Your task to perform on an android device: Show me popular videos on Youtube Image 0: 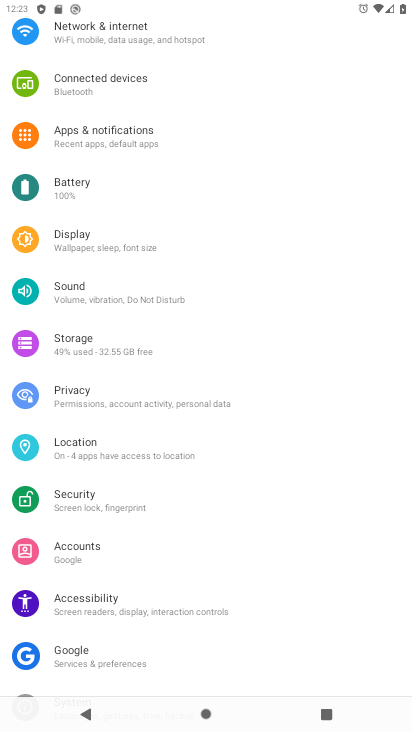
Step 0: press home button
Your task to perform on an android device: Show me popular videos on Youtube Image 1: 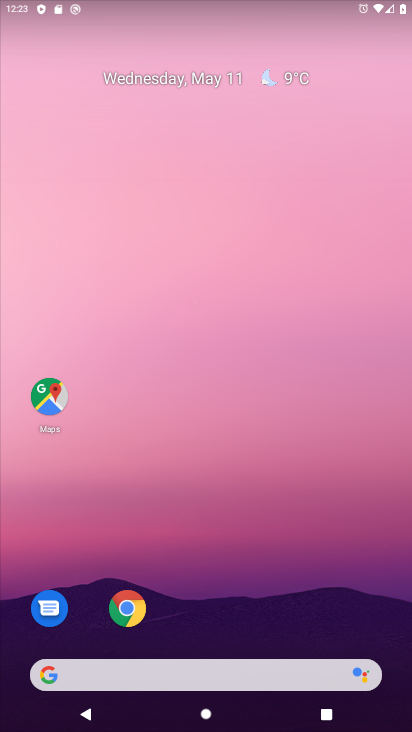
Step 1: drag from (310, 609) to (278, 196)
Your task to perform on an android device: Show me popular videos on Youtube Image 2: 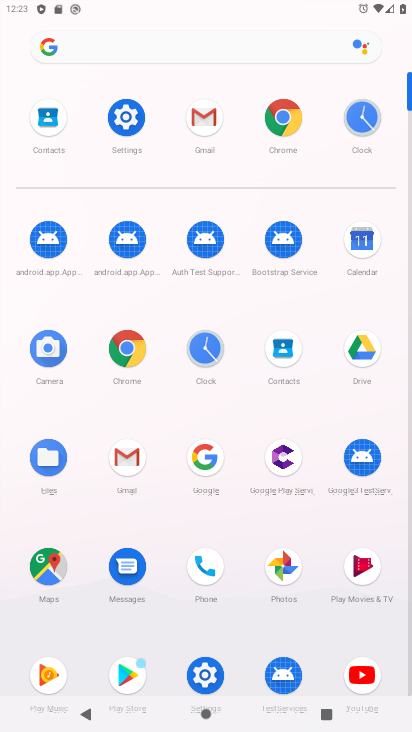
Step 2: click (370, 677)
Your task to perform on an android device: Show me popular videos on Youtube Image 3: 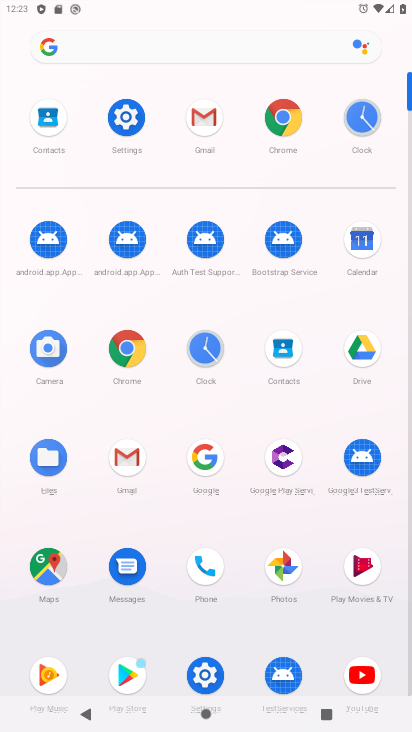
Step 3: click (370, 677)
Your task to perform on an android device: Show me popular videos on Youtube Image 4: 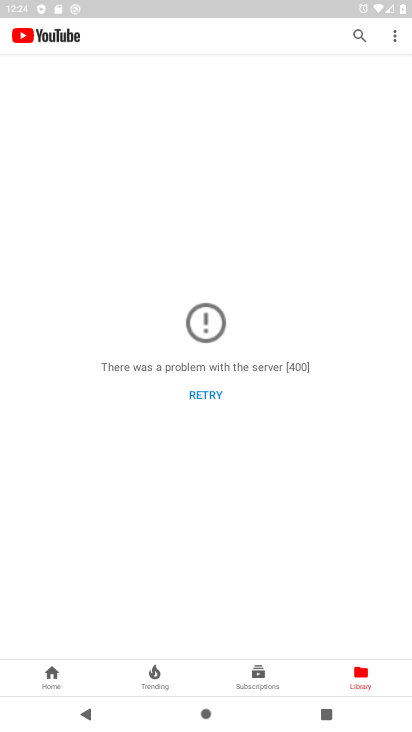
Step 4: task complete